Your task to perform on an android device: open chrome privacy settings Image 0: 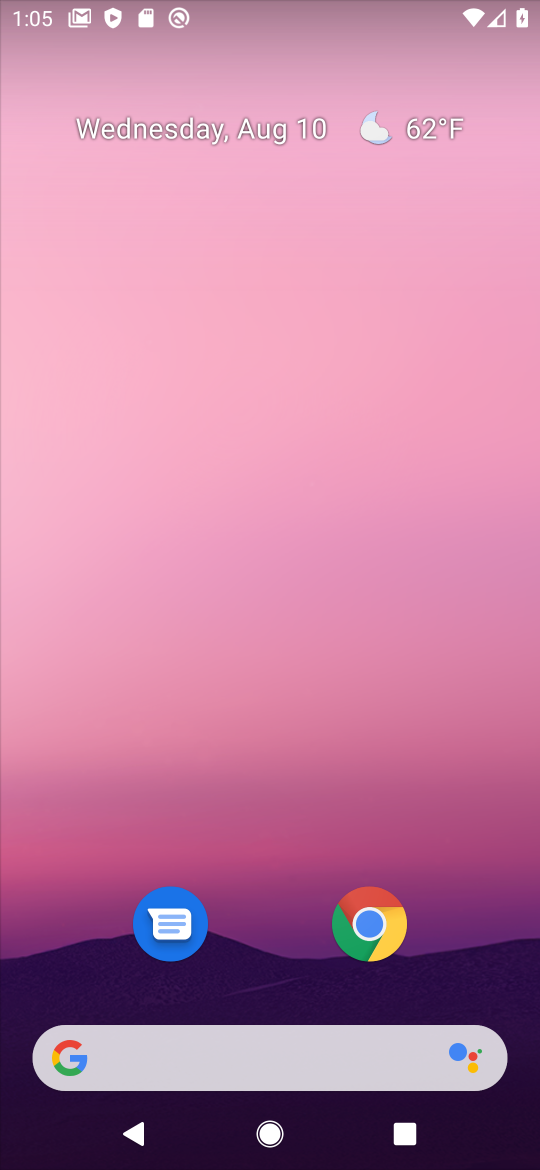
Step 0: drag from (289, 804) to (344, 377)
Your task to perform on an android device: open chrome privacy settings Image 1: 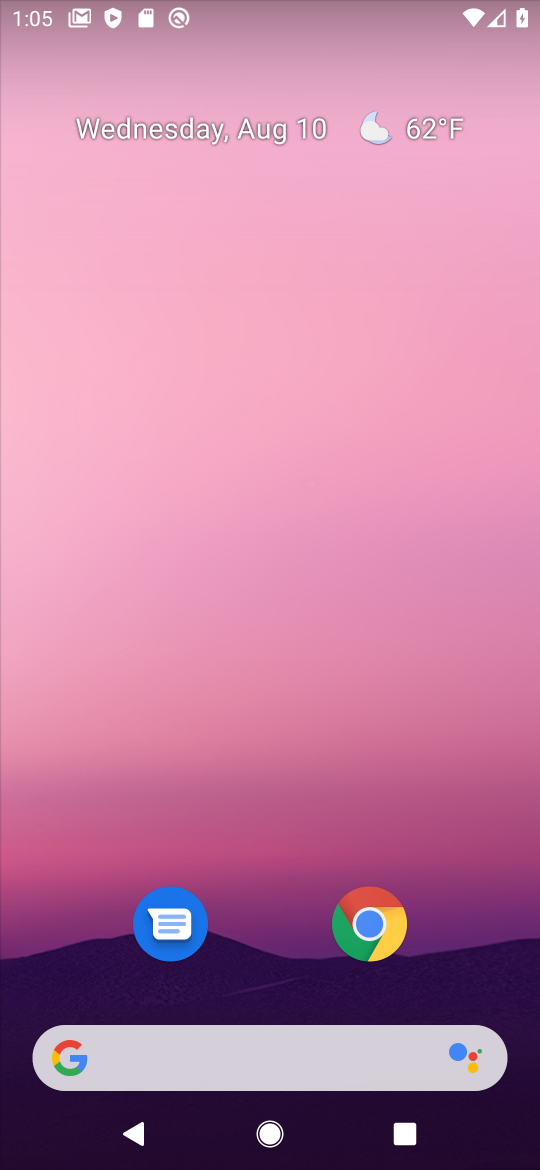
Step 1: click (377, 926)
Your task to perform on an android device: open chrome privacy settings Image 2: 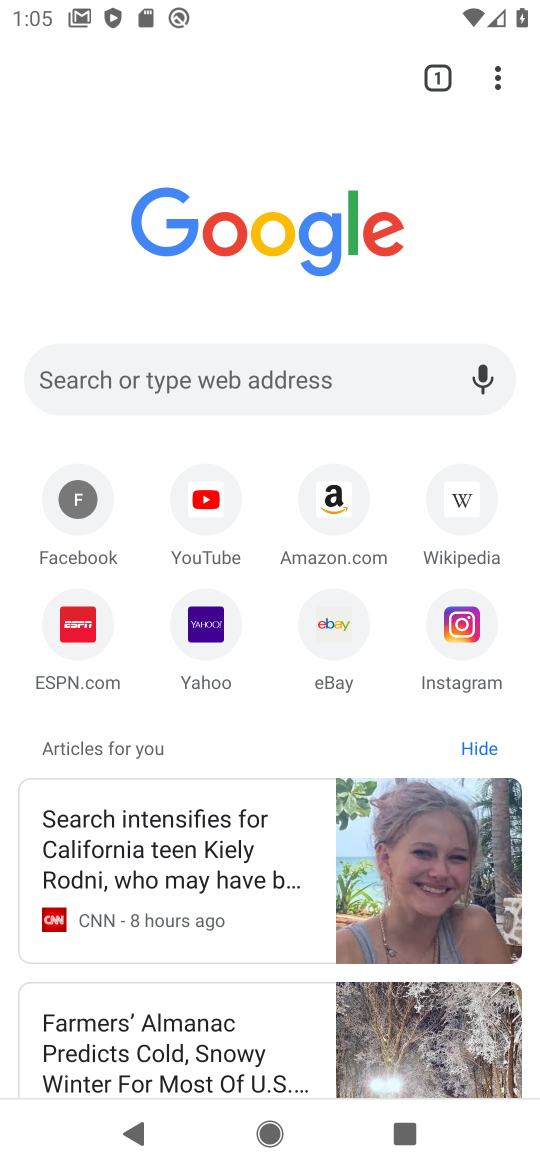
Step 2: task complete